Your task to perform on an android device: Open settings on Google Maps Image 0: 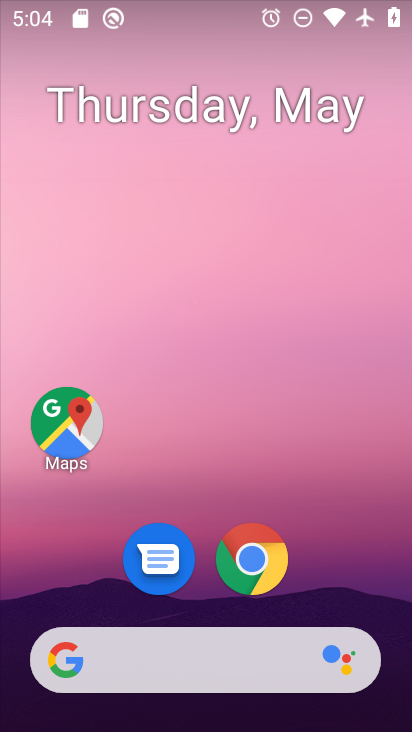
Step 0: drag from (324, 356) to (250, 680)
Your task to perform on an android device: Open settings on Google Maps Image 1: 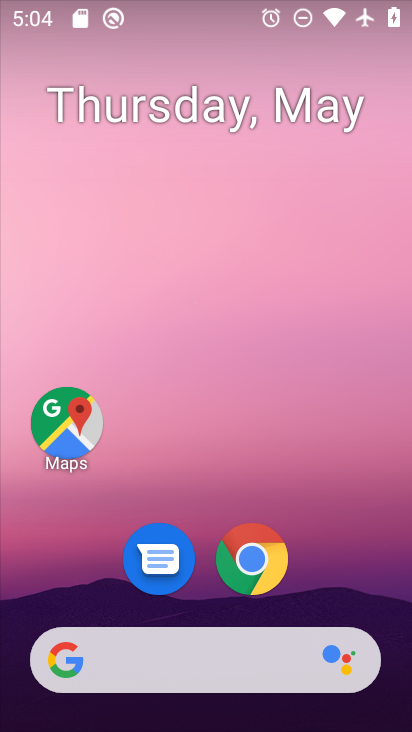
Step 1: click (73, 422)
Your task to perform on an android device: Open settings on Google Maps Image 2: 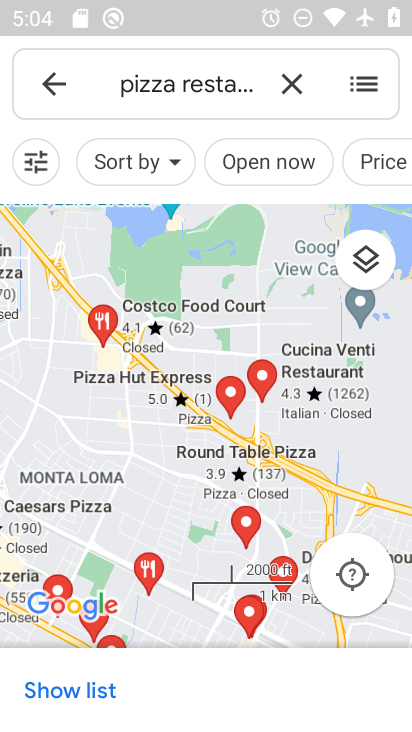
Step 2: click (53, 83)
Your task to perform on an android device: Open settings on Google Maps Image 3: 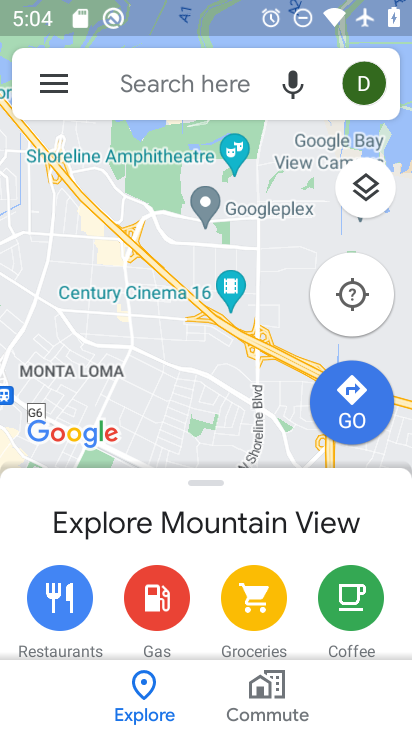
Step 3: click (54, 81)
Your task to perform on an android device: Open settings on Google Maps Image 4: 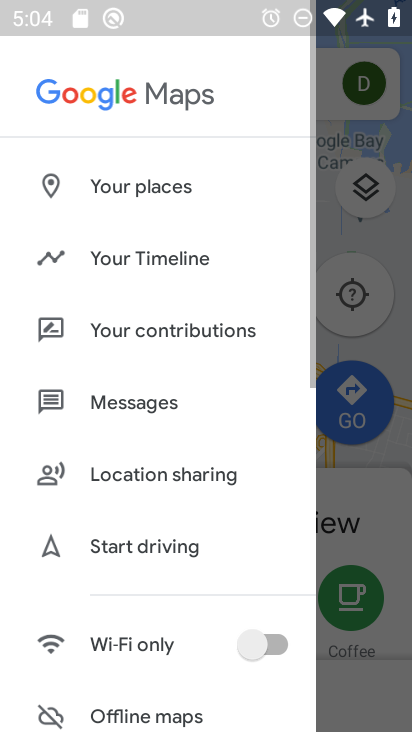
Step 4: drag from (190, 507) to (177, 29)
Your task to perform on an android device: Open settings on Google Maps Image 5: 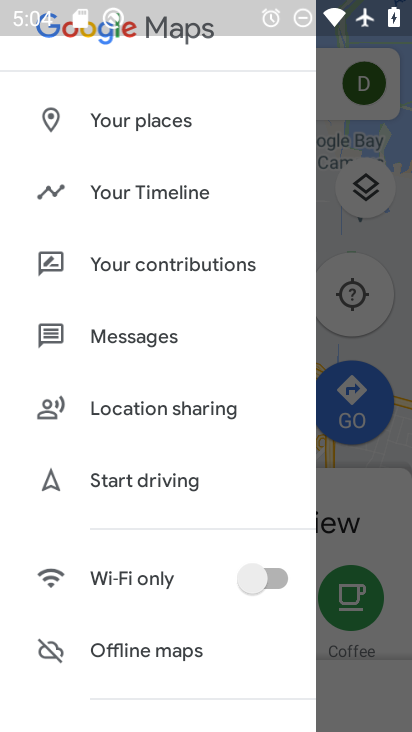
Step 5: drag from (143, 372) to (127, 69)
Your task to perform on an android device: Open settings on Google Maps Image 6: 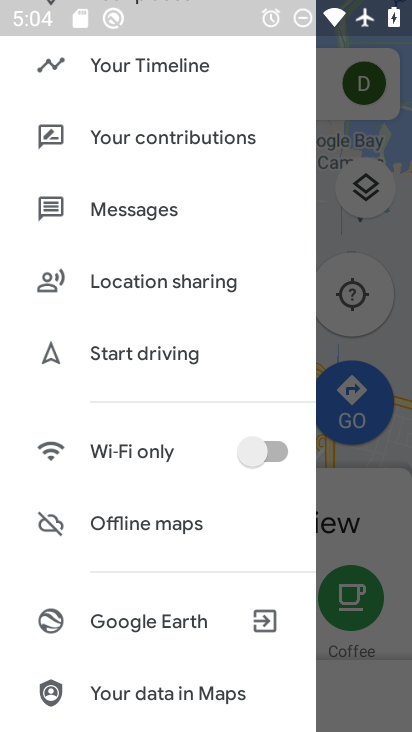
Step 6: drag from (143, 610) to (160, 73)
Your task to perform on an android device: Open settings on Google Maps Image 7: 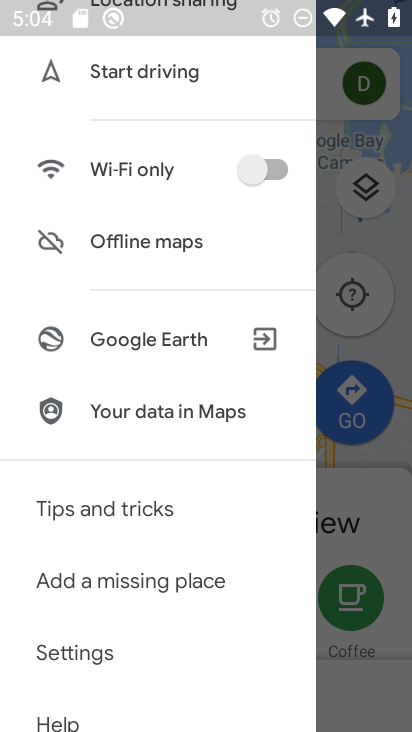
Step 7: click (120, 655)
Your task to perform on an android device: Open settings on Google Maps Image 8: 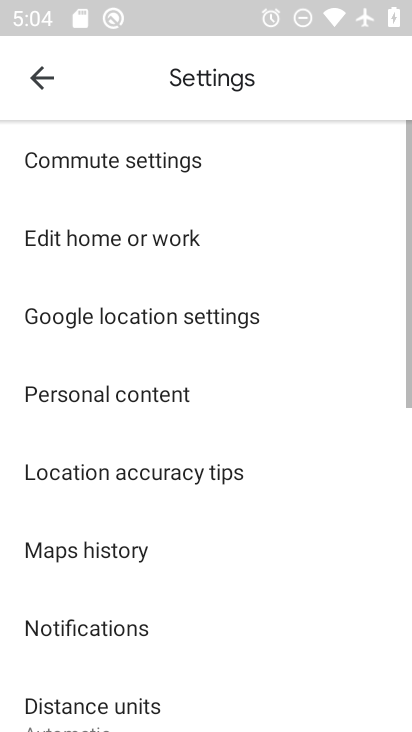
Step 8: task complete